Your task to perform on an android device: Go to notification settings Image 0: 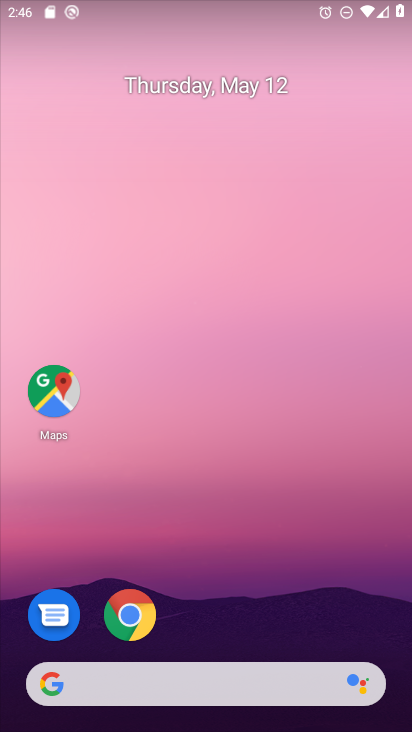
Step 0: drag from (326, 688) to (283, 17)
Your task to perform on an android device: Go to notification settings Image 1: 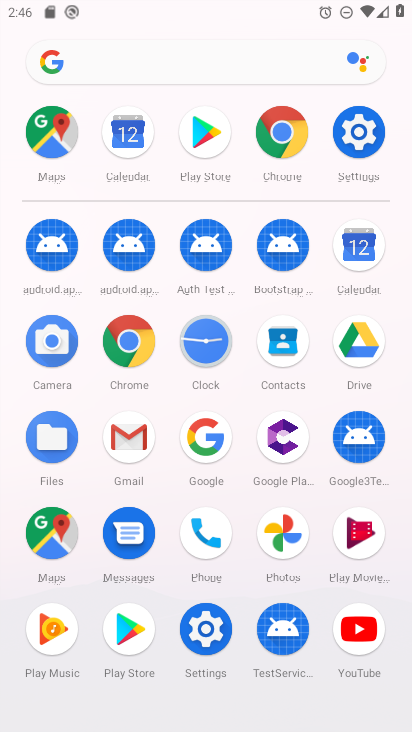
Step 1: click (357, 142)
Your task to perform on an android device: Go to notification settings Image 2: 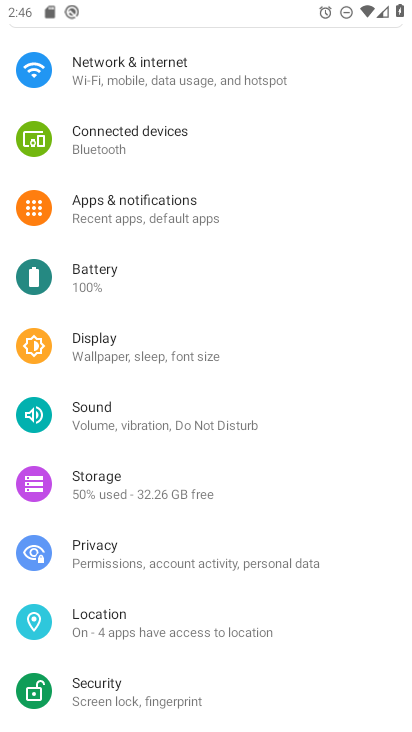
Step 2: click (170, 212)
Your task to perform on an android device: Go to notification settings Image 3: 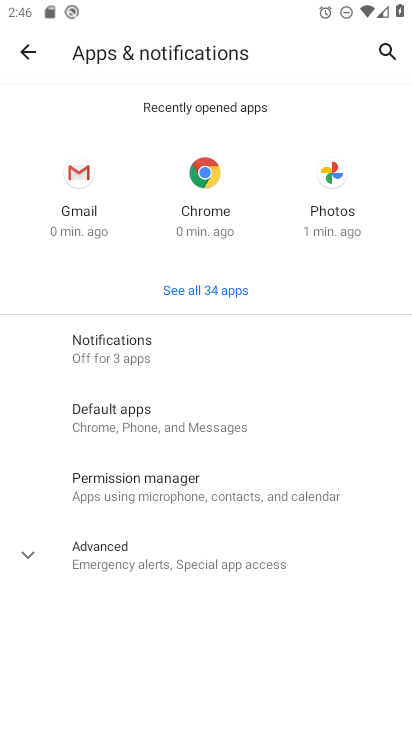
Step 3: click (280, 337)
Your task to perform on an android device: Go to notification settings Image 4: 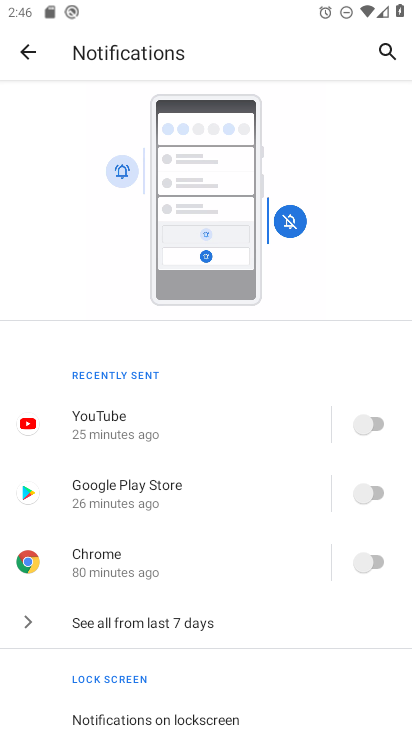
Step 4: task complete